Your task to perform on an android device: What is the capital of Brazil? Image 0: 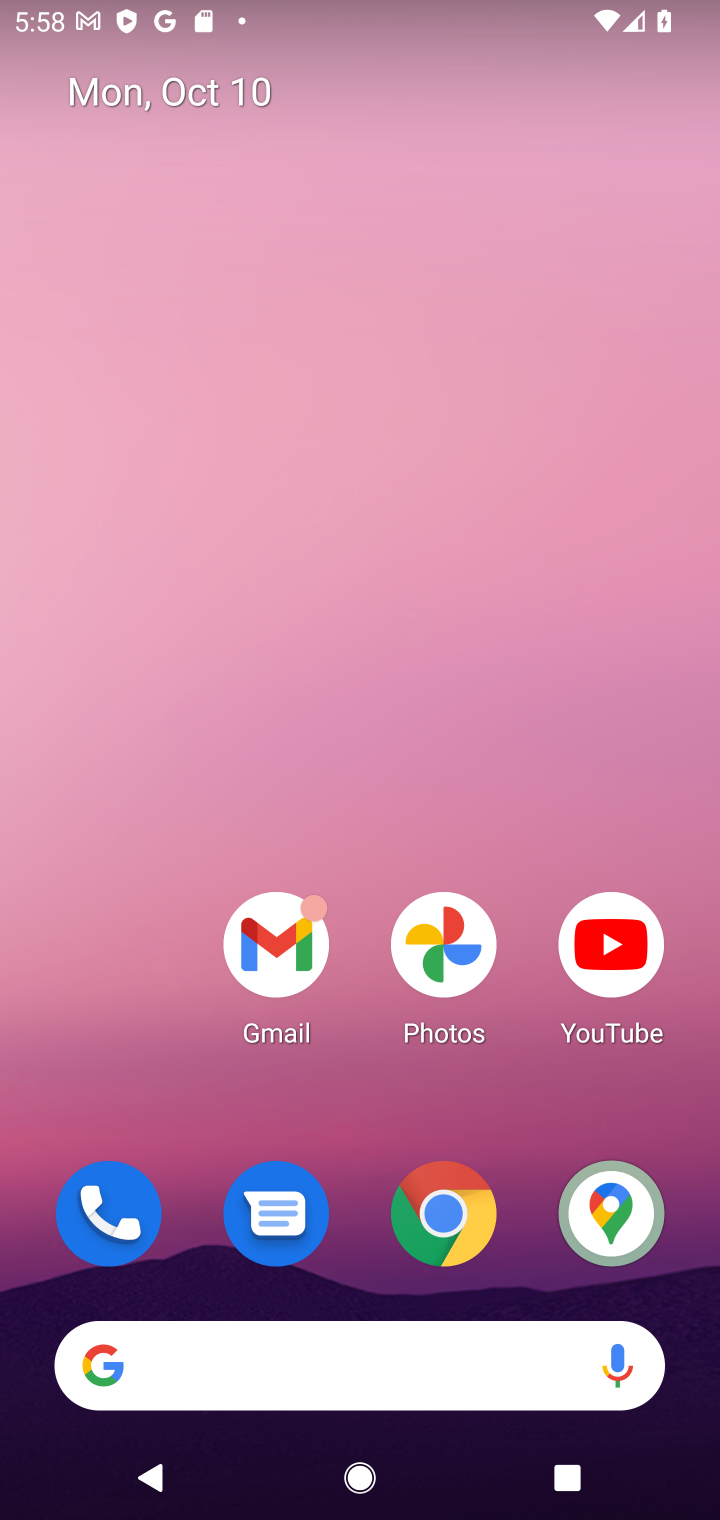
Step 0: click (332, 1347)
Your task to perform on an android device: What is the capital of Brazil? Image 1: 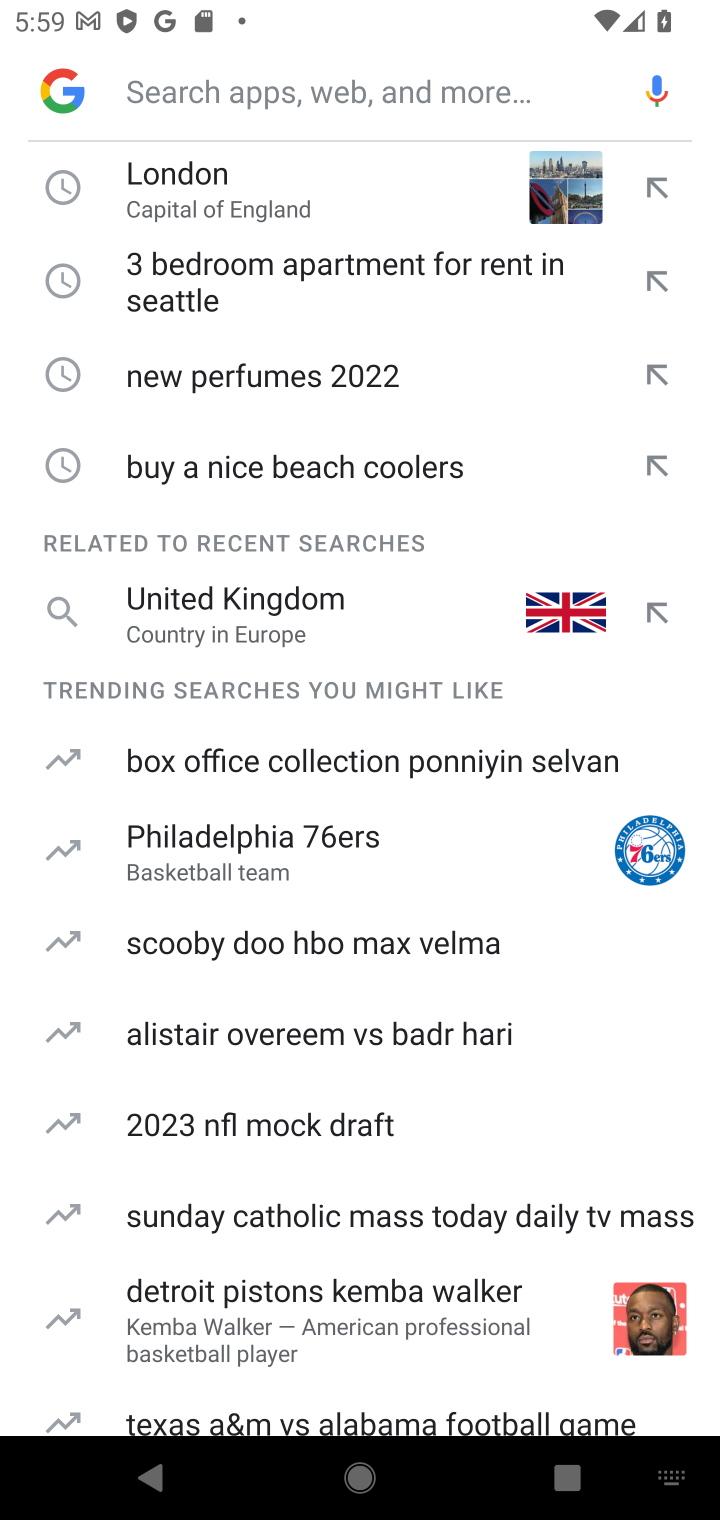
Step 1: type "capital of Brazil"
Your task to perform on an android device: What is the capital of Brazil? Image 2: 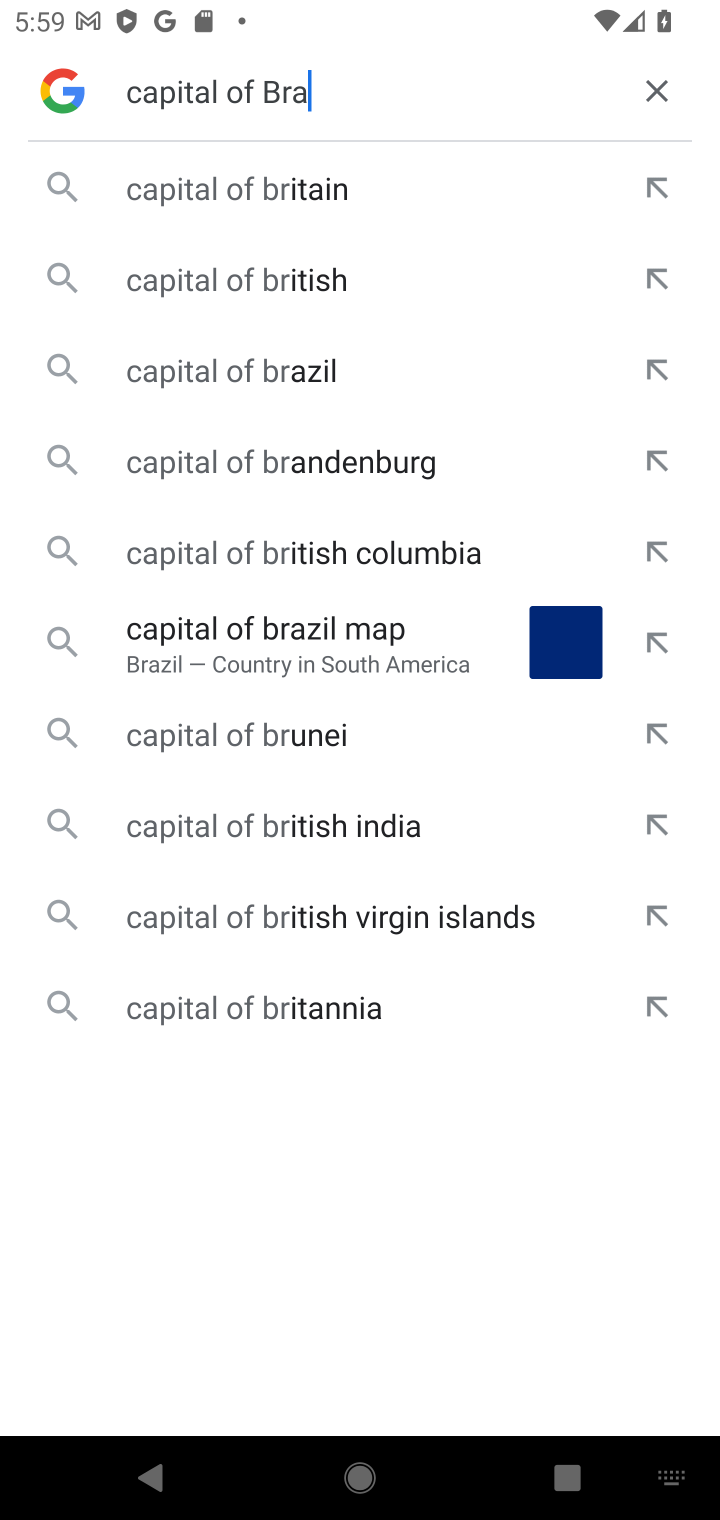
Step 2: type ""
Your task to perform on an android device: What is the capital of Brazil? Image 3: 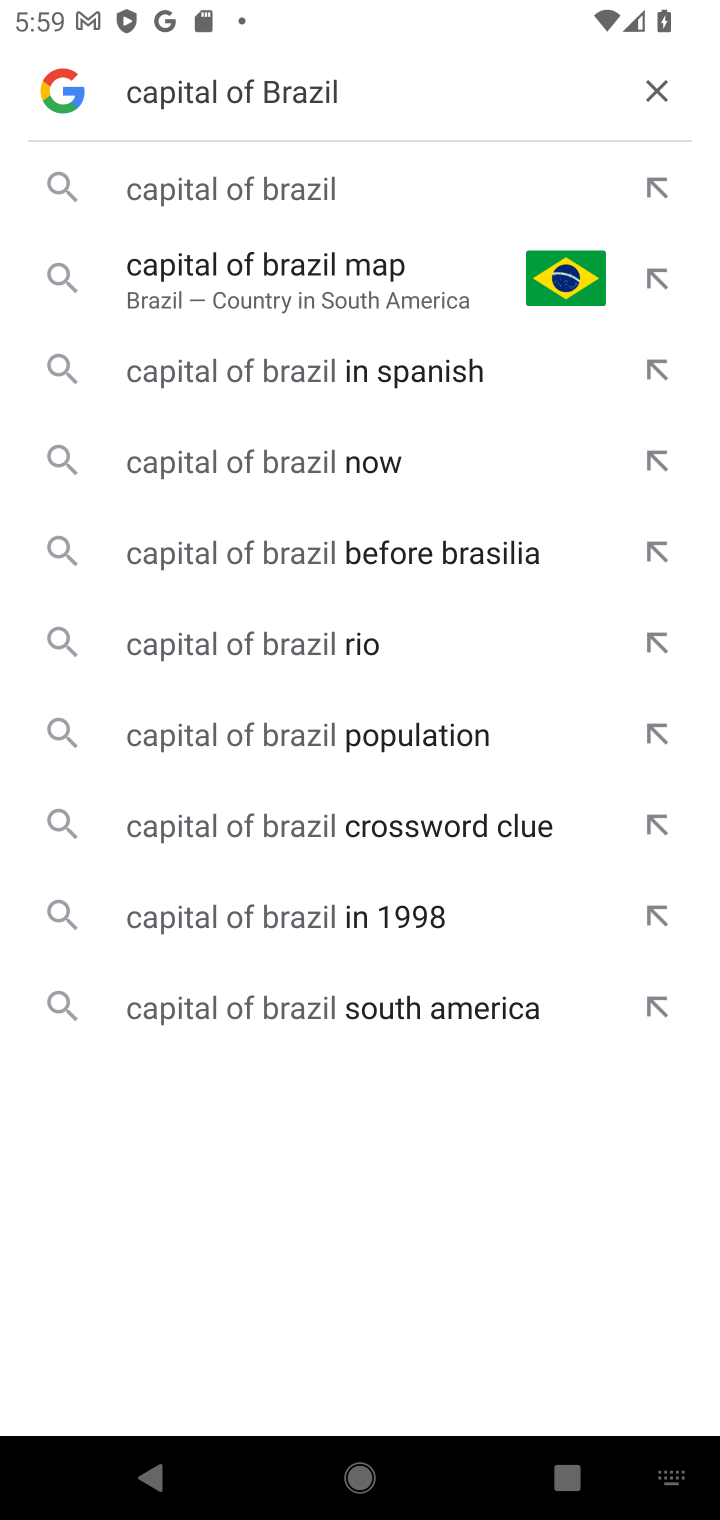
Step 3: click (266, 183)
Your task to perform on an android device: What is the capital of Brazil? Image 4: 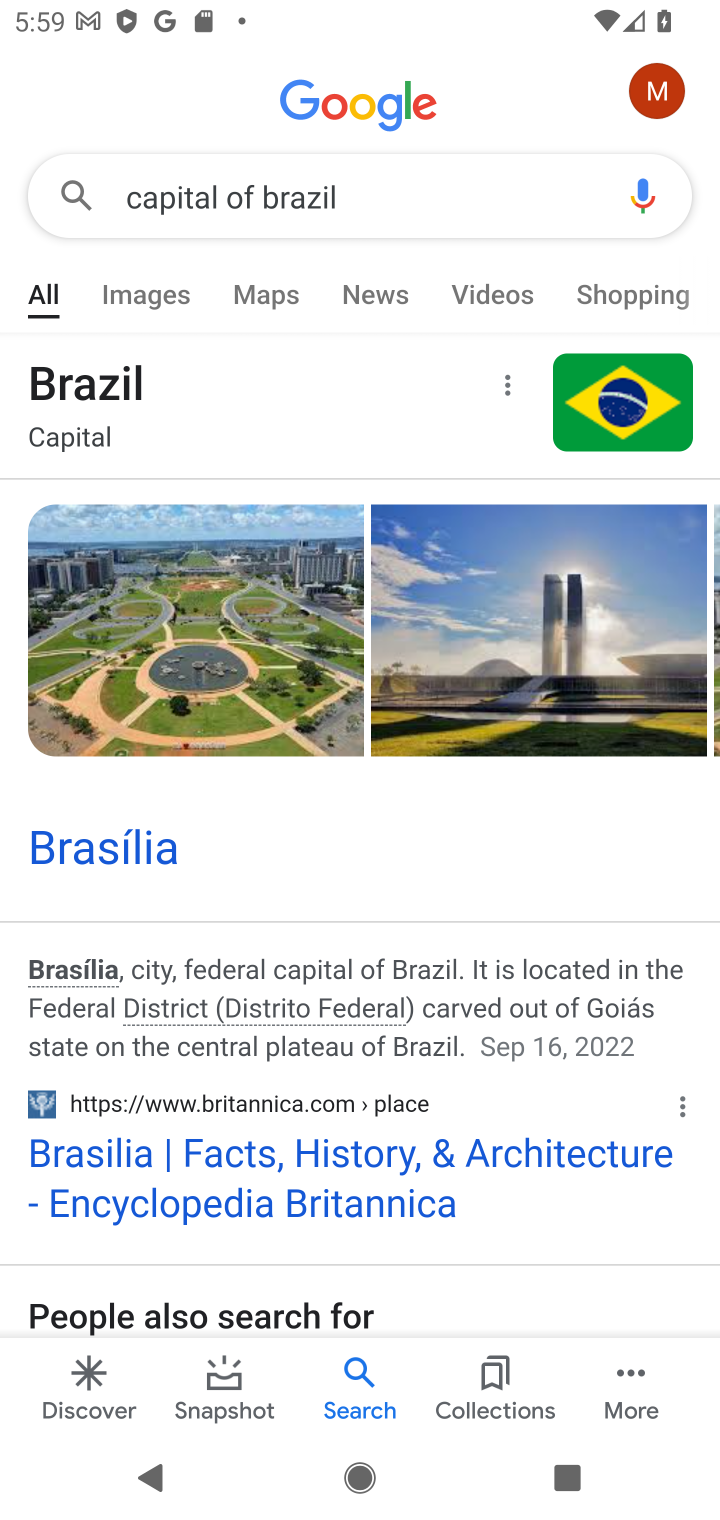
Step 4: task complete